Your task to perform on an android device: What is the news today? Image 0: 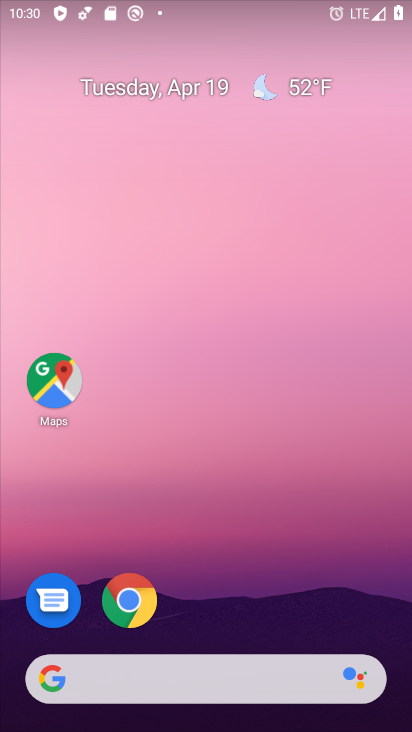
Step 0: drag from (311, 615) to (251, 152)
Your task to perform on an android device: What is the news today? Image 1: 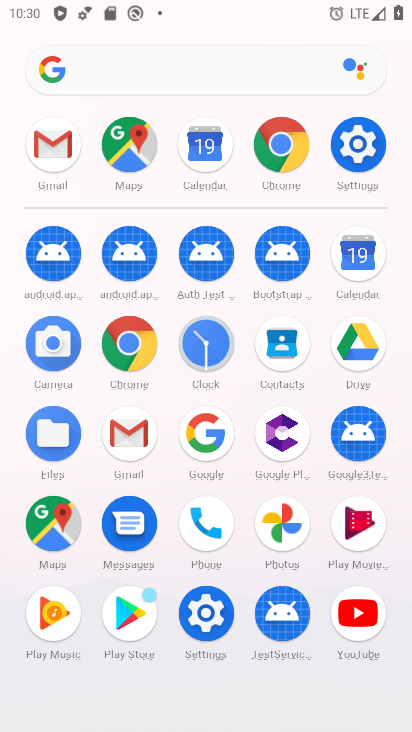
Step 1: click (143, 341)
Your task to perform on an android device: What is the news today? Image 2: 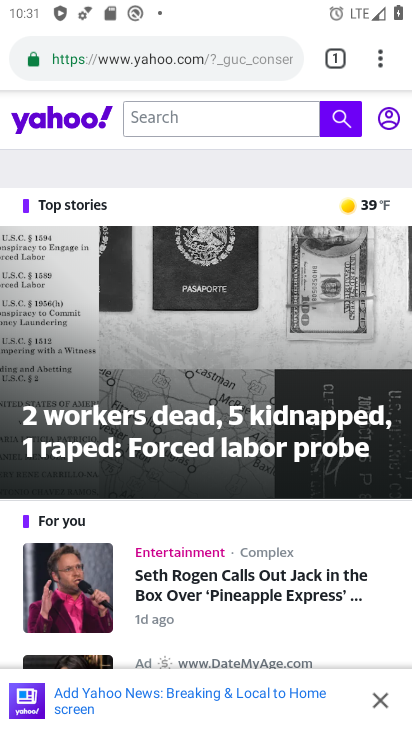
Step 2: press back button
Your task to perform on an android device: What is the news today? Image 3: 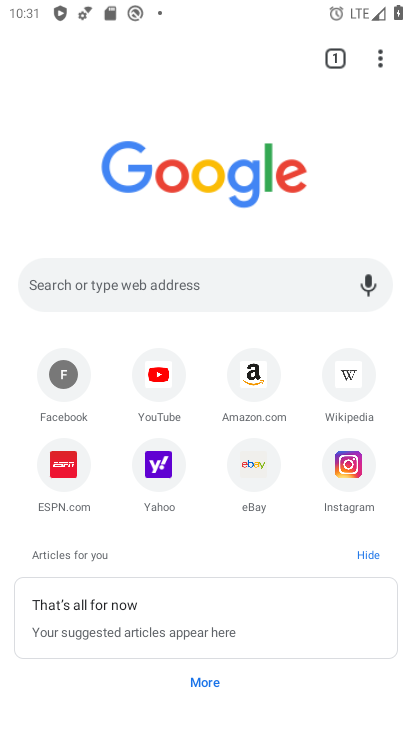
Step 3: click (192, 673)
Your task to perform on an android device: What is the news today? Image 4: 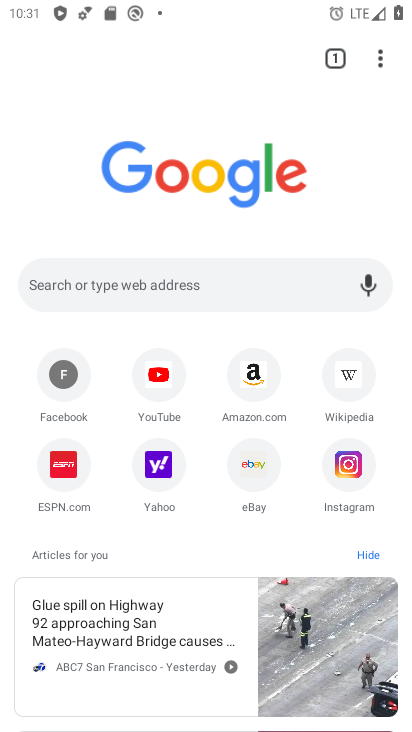
Step 4: drag from (155, 663) to (175, 493)
Your task to perform on an android device: What is the news today? Image 5: 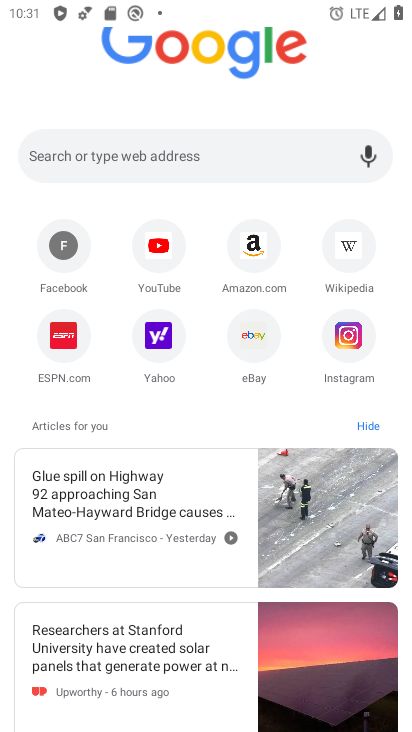
Step 5: click (149, 486)
Your task to perform on an android device: What is the news today? Image 6: 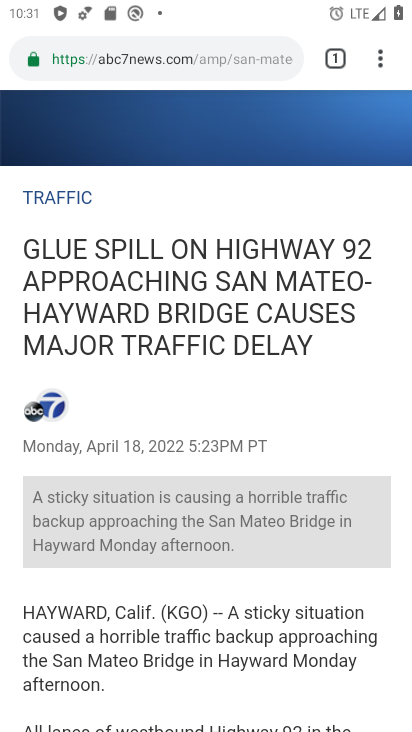
Step 6: task complete